Your task to perform on an android device: What is the news today? Image 0: 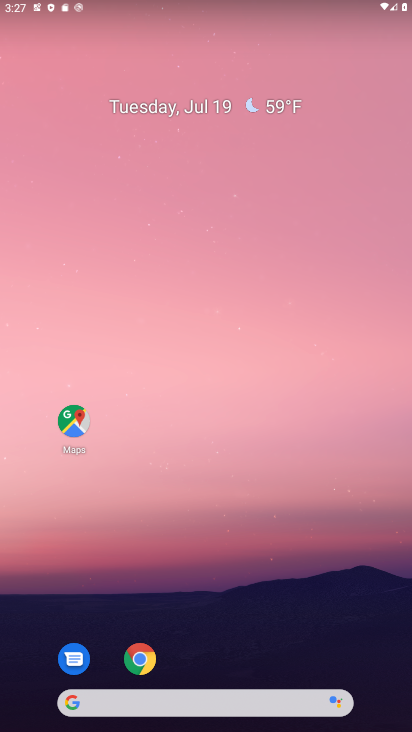
Step 0: drag from (168, 704) to (285, 109)
Your task to perform on an android device: What is the news today? Image 1: 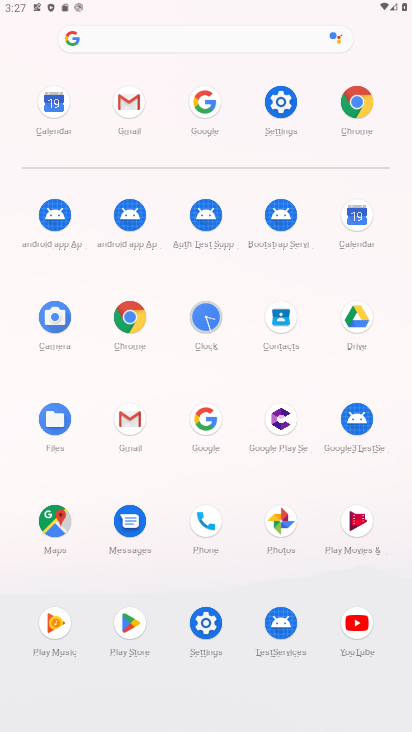
Step 1: click (206, 416)
Your task to perform on an android device: What is the news today? Image 2: 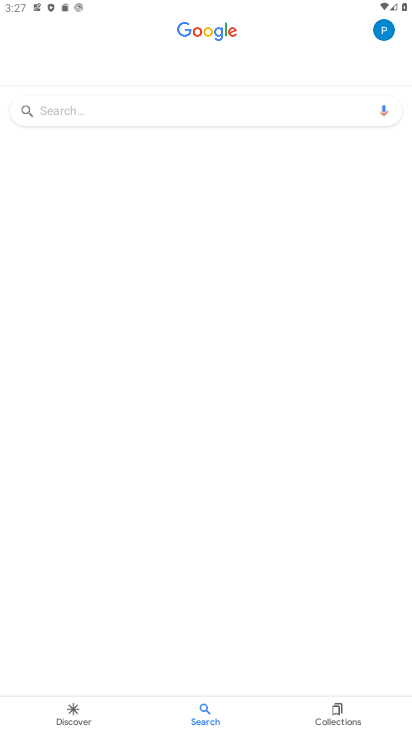
Step 2: click (224, 109)
Your task to perform on an android device: What is the news today? Image 3: 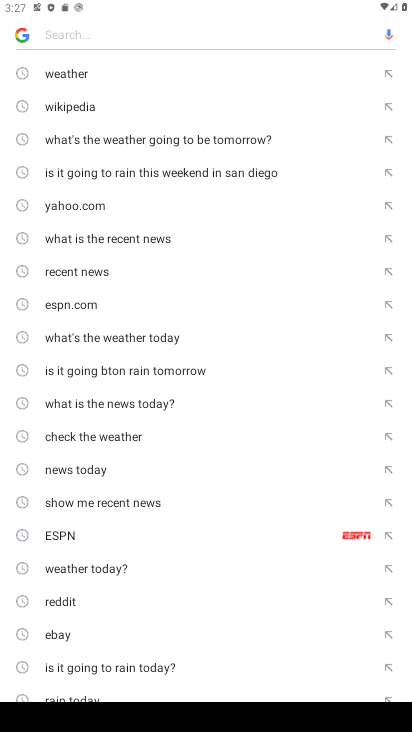
Step 3: click (100, 477)
Your task to perform on an android device: What is the news today? Image 4: 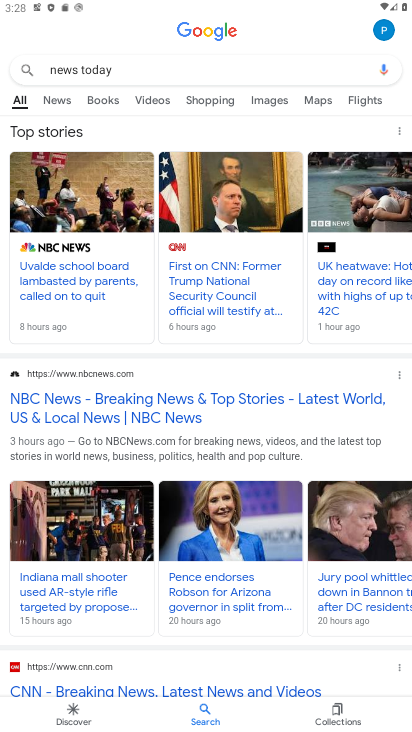
Step 4: click (56, 275)
Your task to perform on an android device: What is the news today? Image 5: 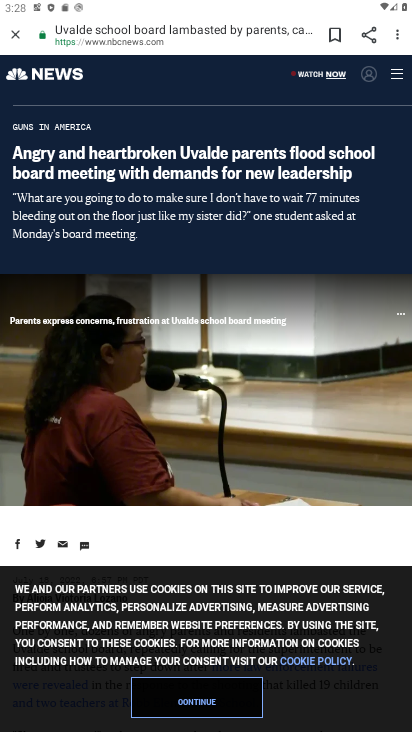
Step 5: task complete